Your task to perform on an android device: Clear all items from cart on newegg. Add "acer predator" to the cart on newegg Image 0: 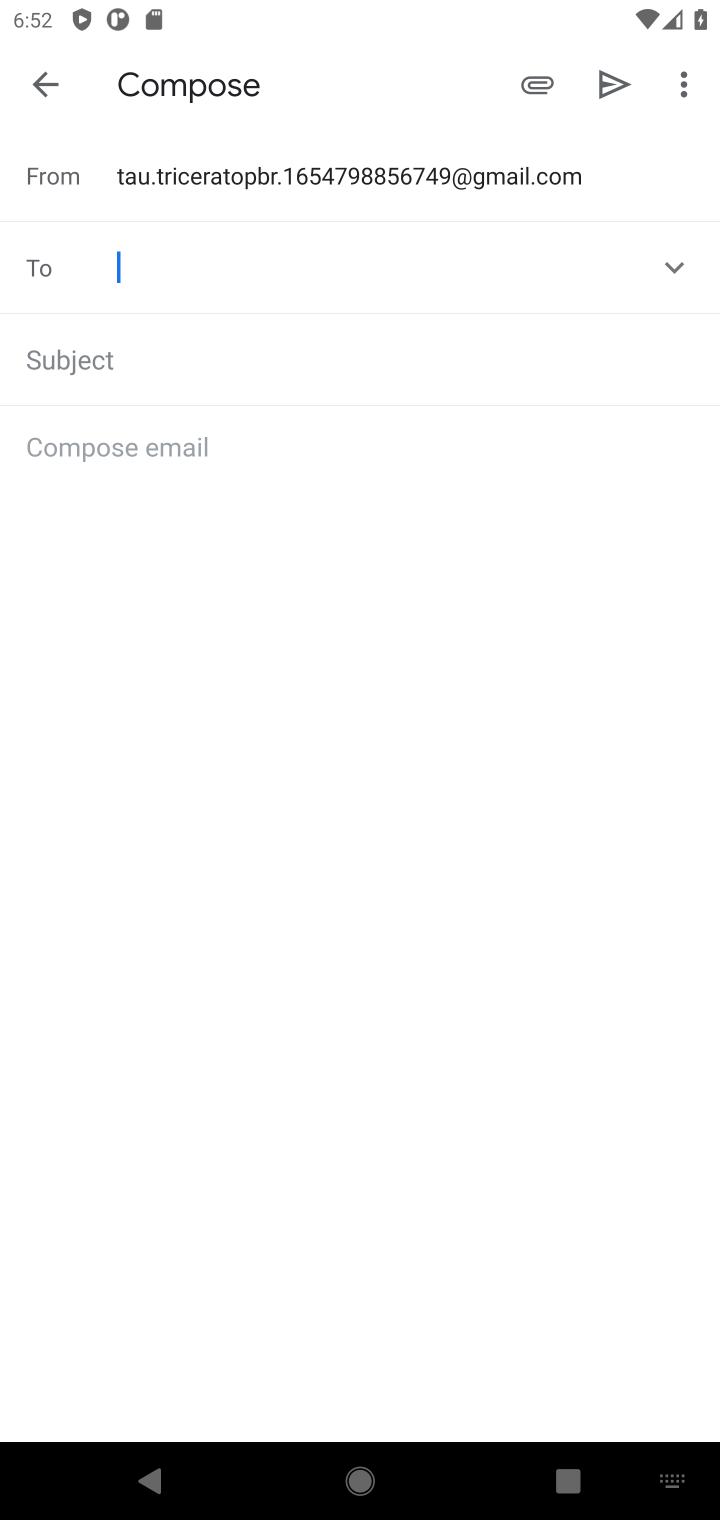
Step 0: press home button
Your task to perform on an android device: Clear all items from cart on newegg. Add "acer predator" to the cart on newegg Image 1: 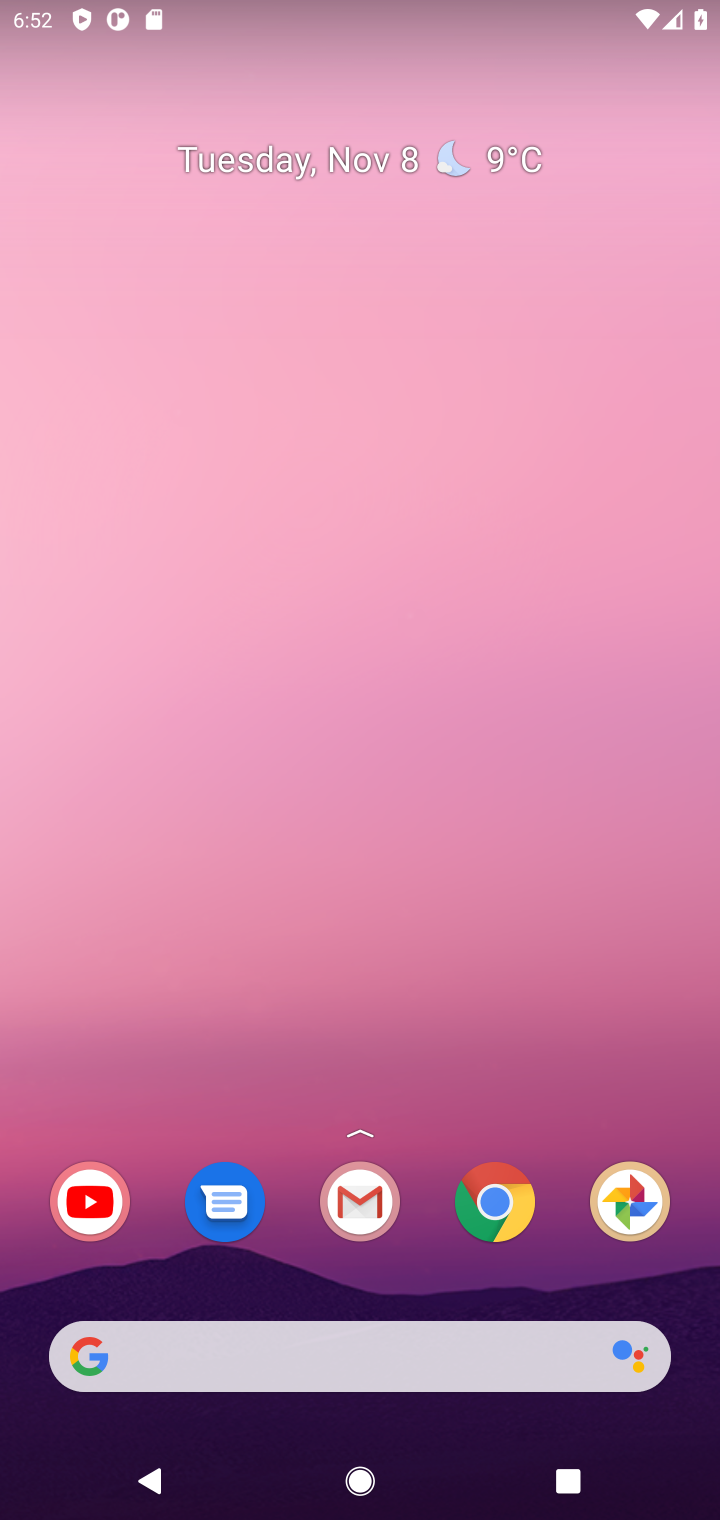
Step 1: click (275, 1365)
Your task to perform on an android device: Clear all items from cart on newegg. Add "acer predator" to the cart on newegg Image 2: 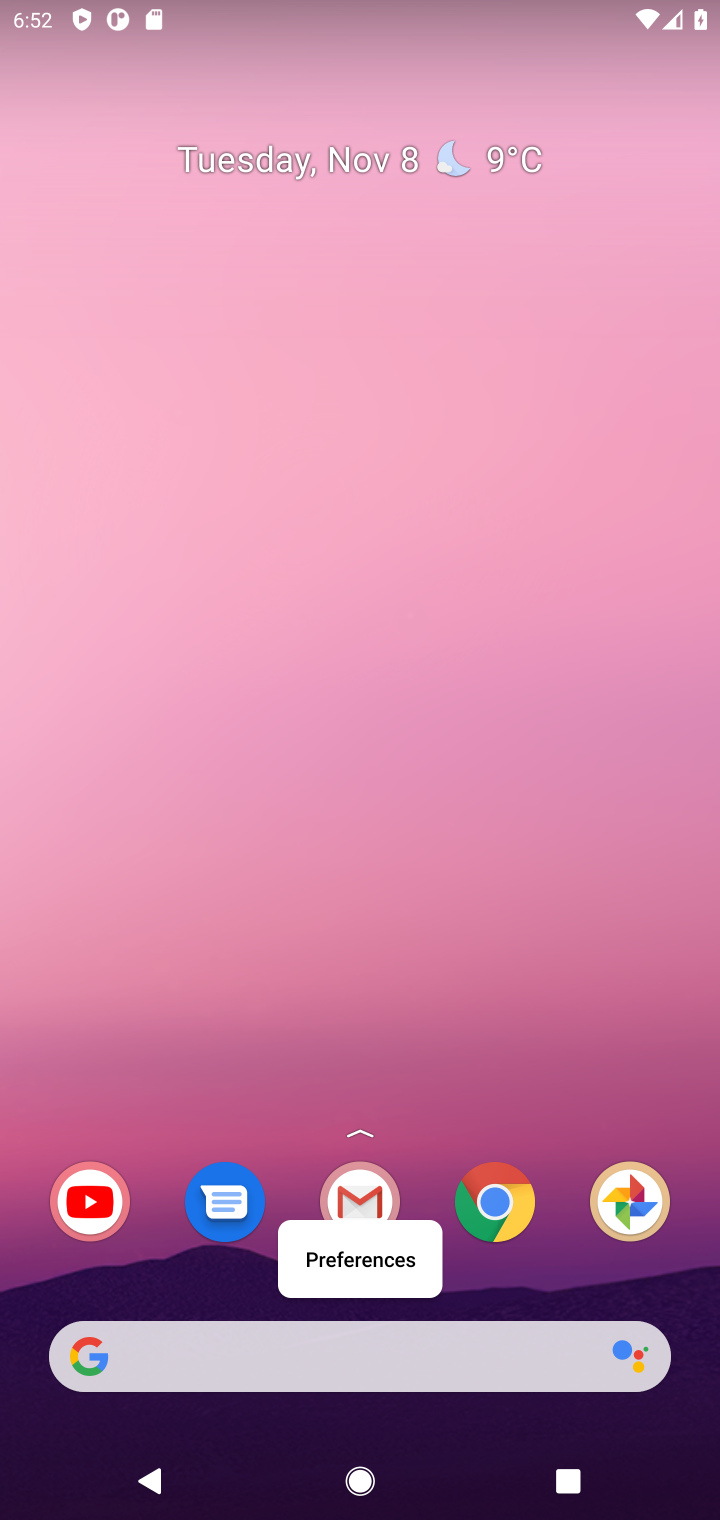
Step 2: click (275, 1365)
Your task to perform on an android device: Clear all items from cart on newegg. Add "acer predator" to the cart on newegg Image 3: 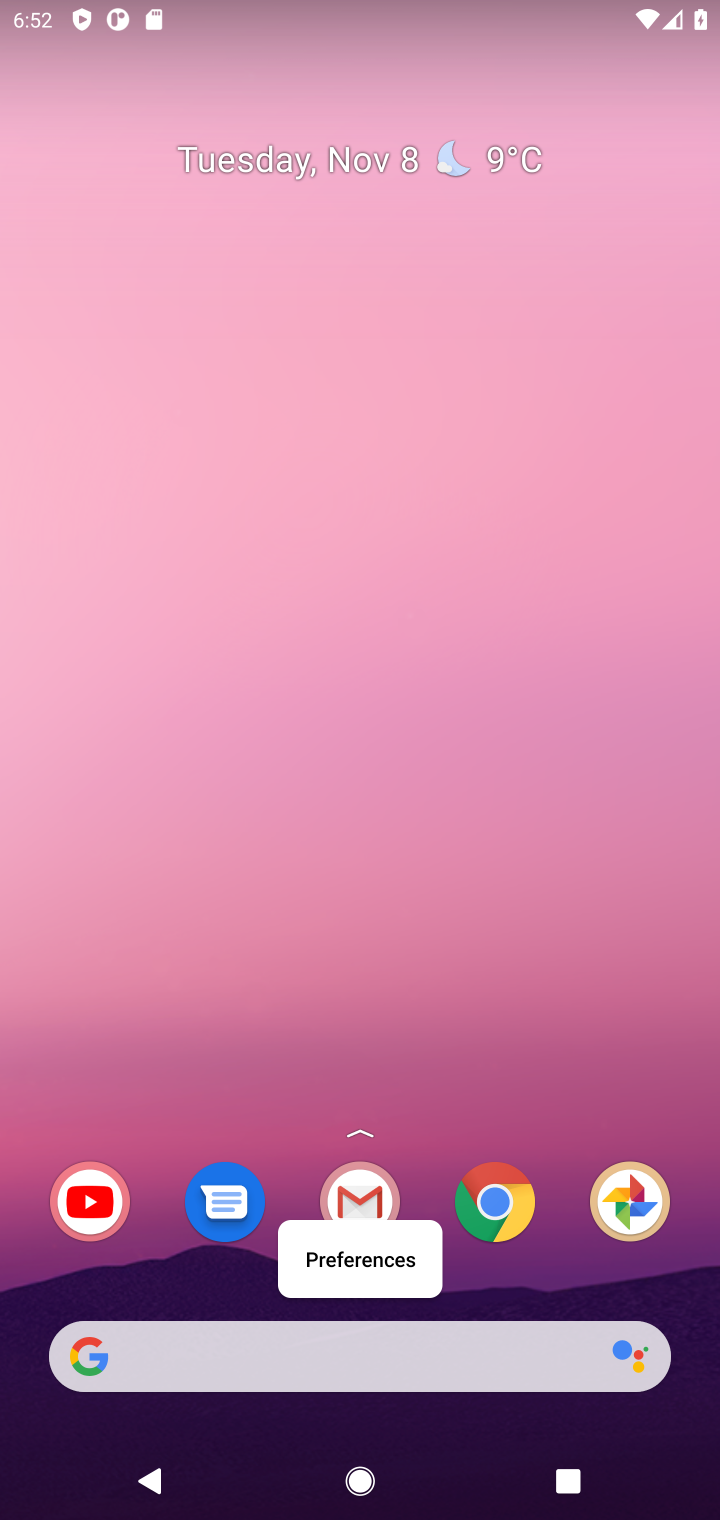
Step 3: click (275, 1365)
Your task to perform on an android device: Clear all items from cart on newegg. Add "acer predator" to the cart on newegg Image 4: 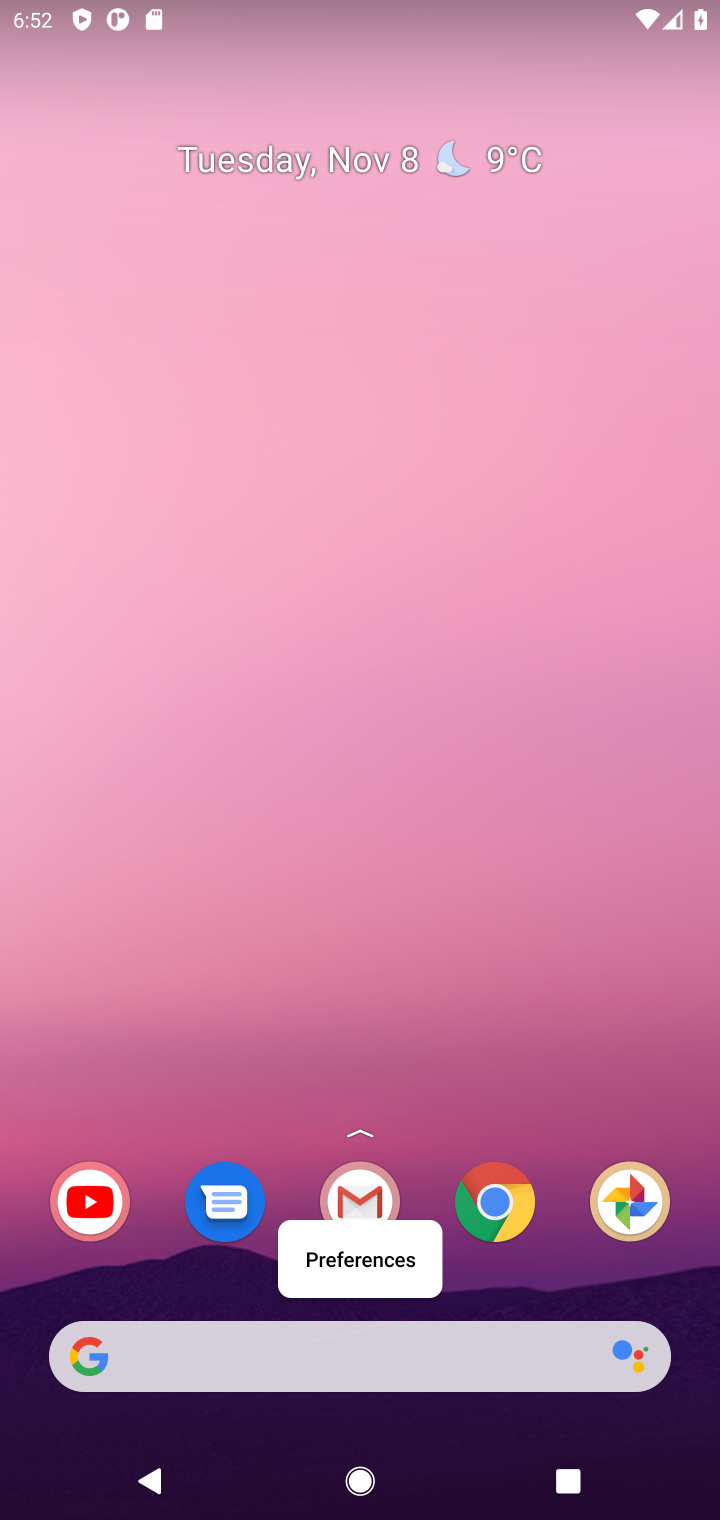
Step 4: click (275, 1365)
Your task to perform on an android device: Clear all items from cart on newegg. Add "acer predator" to the cart on newegg Image 5: 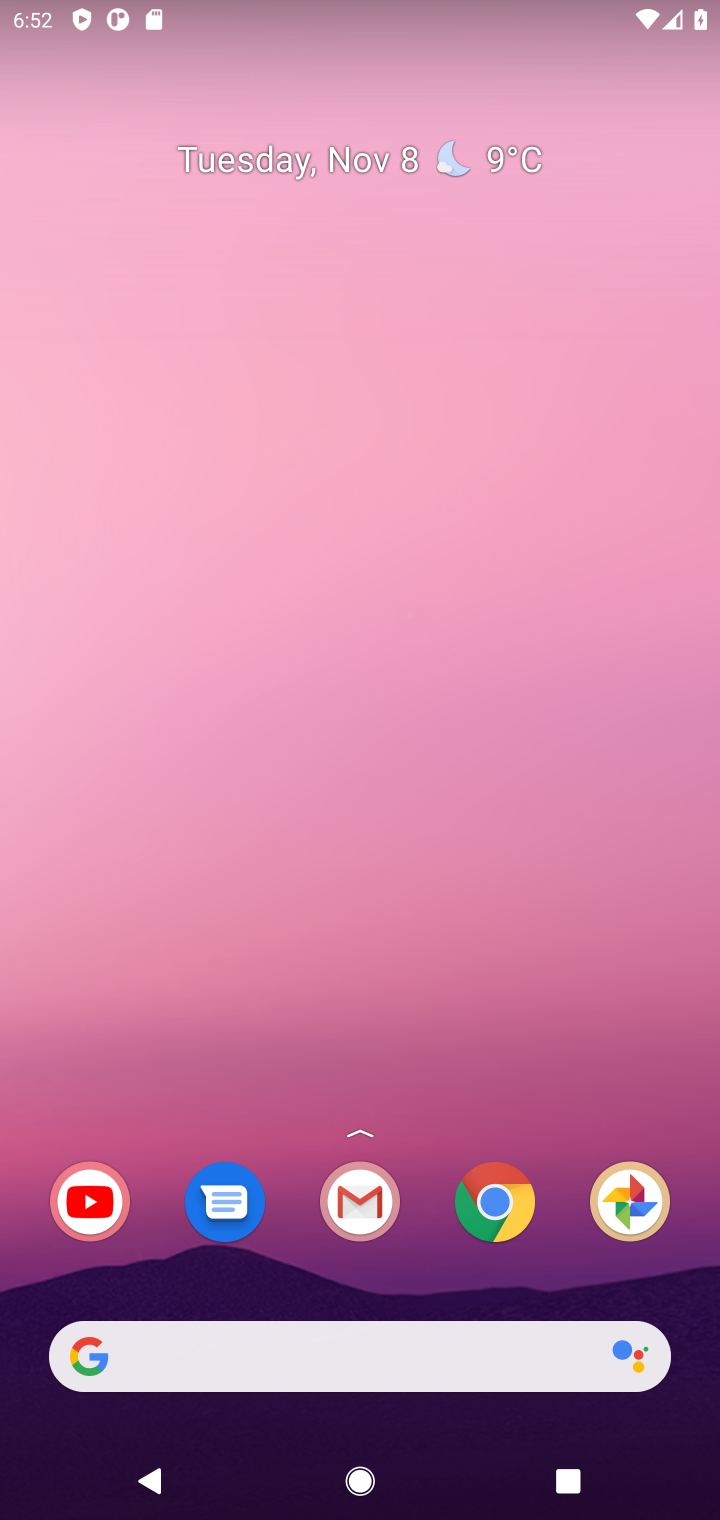
Step 5: click (275, 1365)
Your task to perform on an android device: Clear all items from cart on newegg. Add "acer predator" to the cart on newegg Image 6: 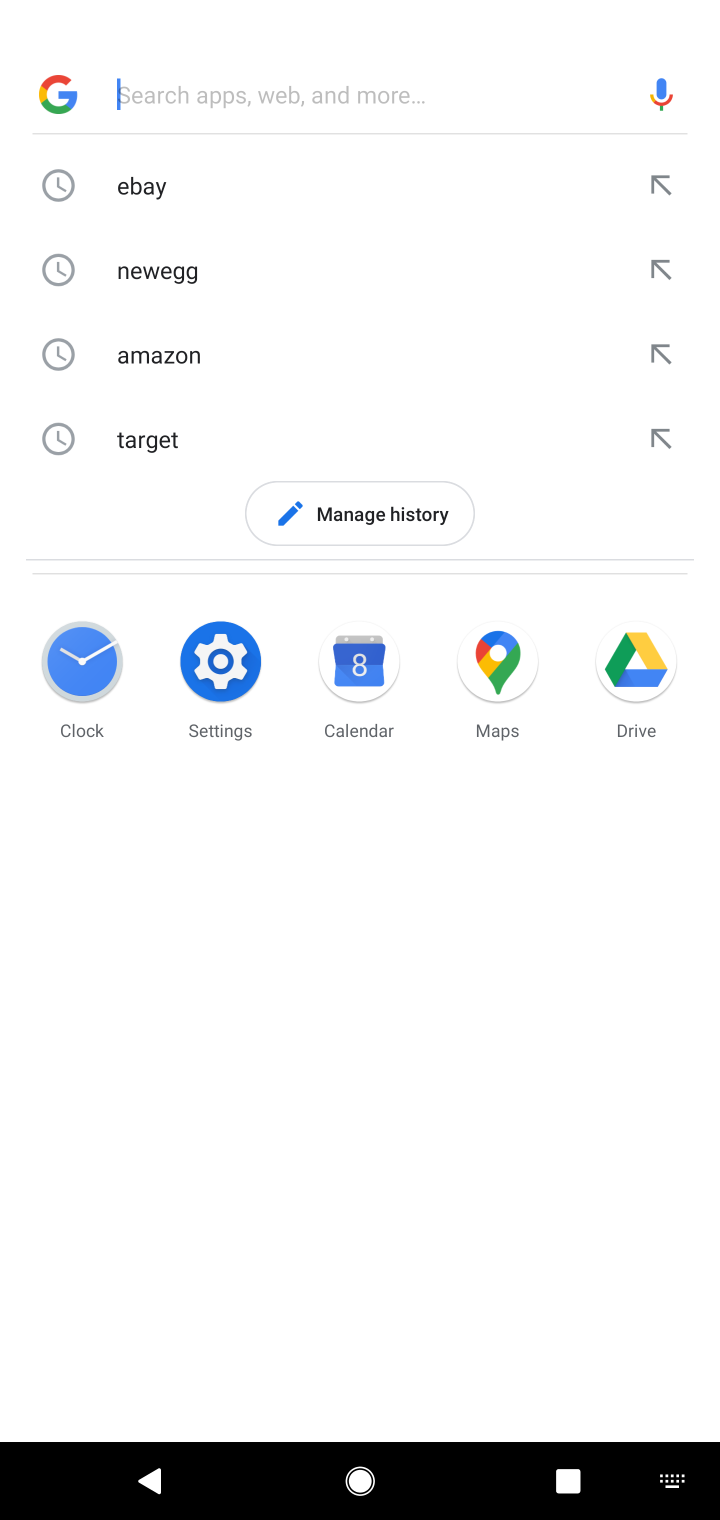
Step 6: type "newegg"
Your task to perform on an android device: Clear all items from cart on newegg. Add "acer predator" to the cart on newegg Image 7: 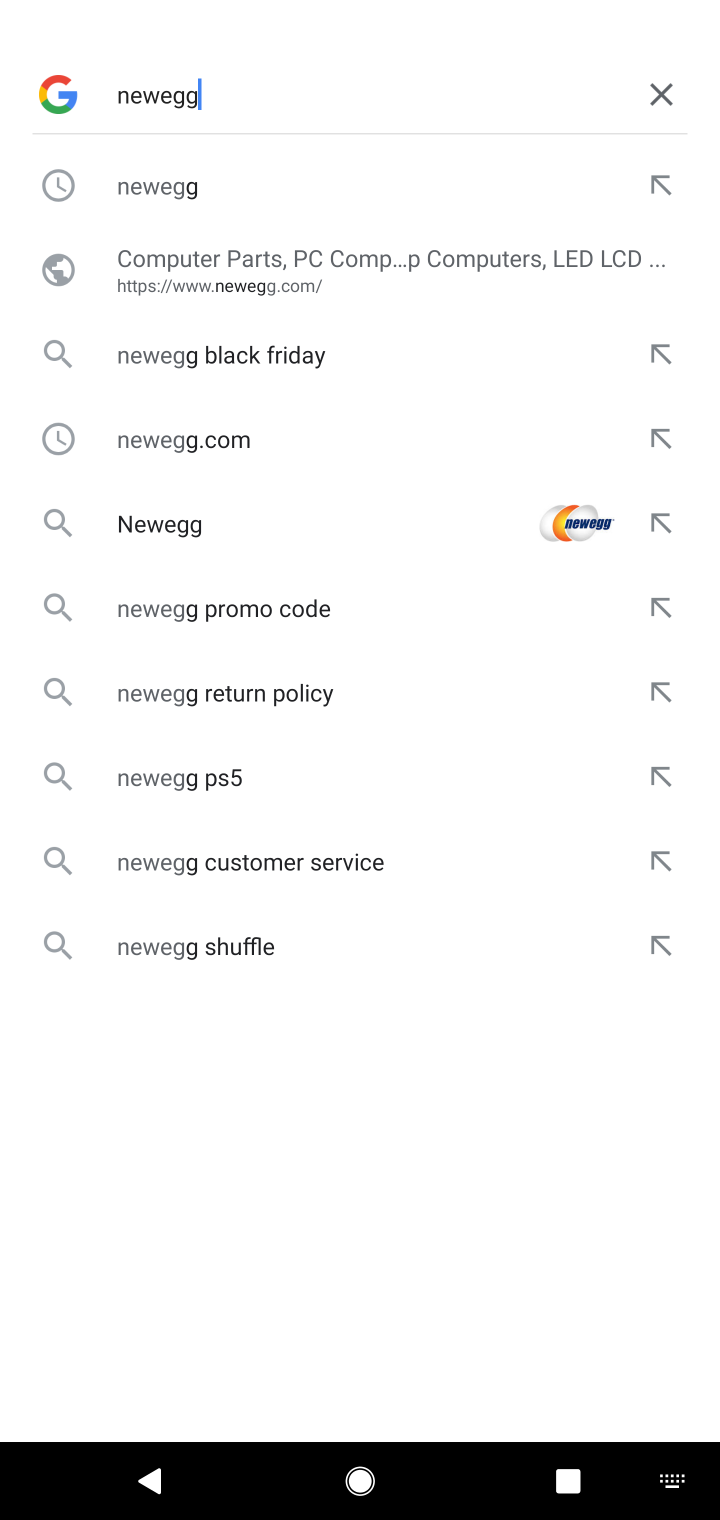
Step 7: type ""
Your task to perform on an android device: Clear all items from cart on newegg. Add "acer predator" to the cart on newegg Image 8: 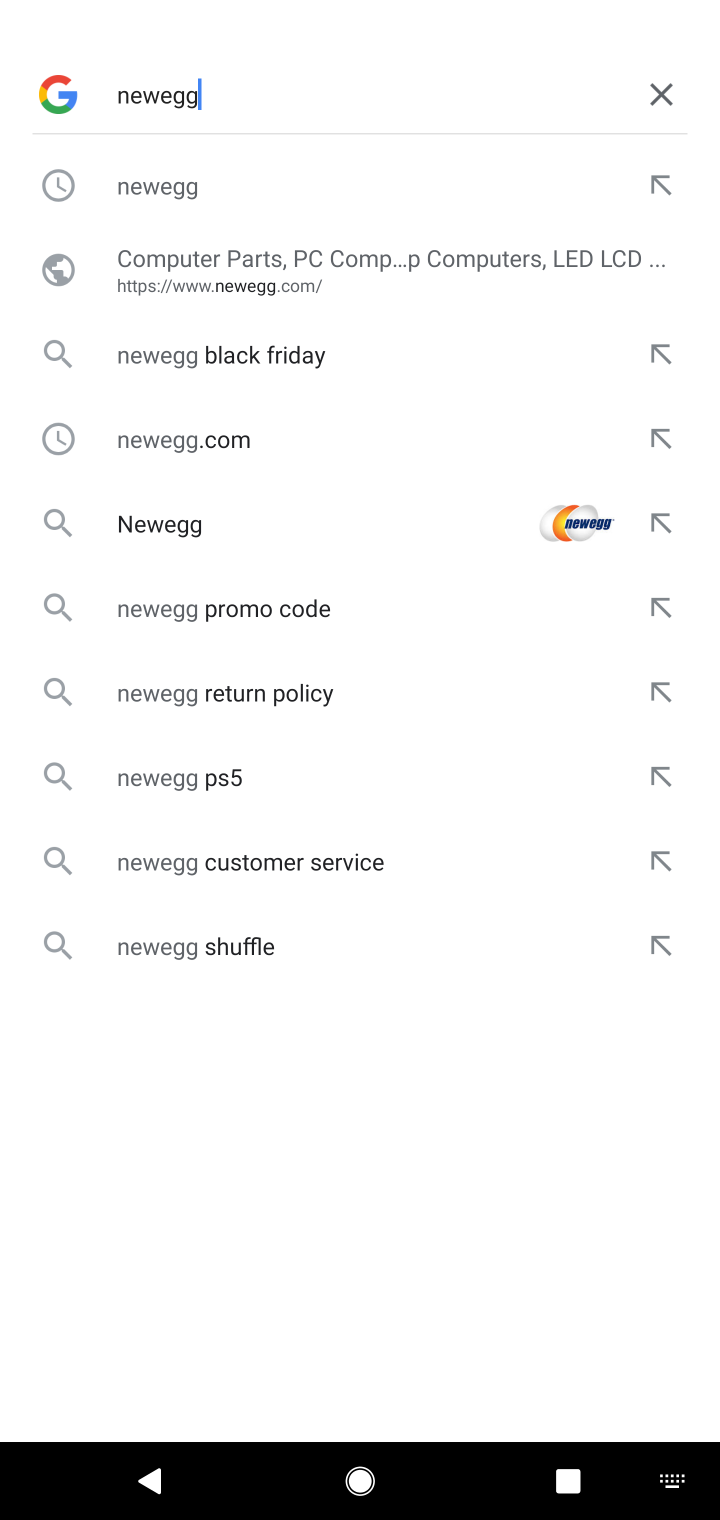
Step 8: press enter
Your task to perform on an android device: Clear all items from cart on newegg. Add "acer predator" to the cart on newegg Image 9: 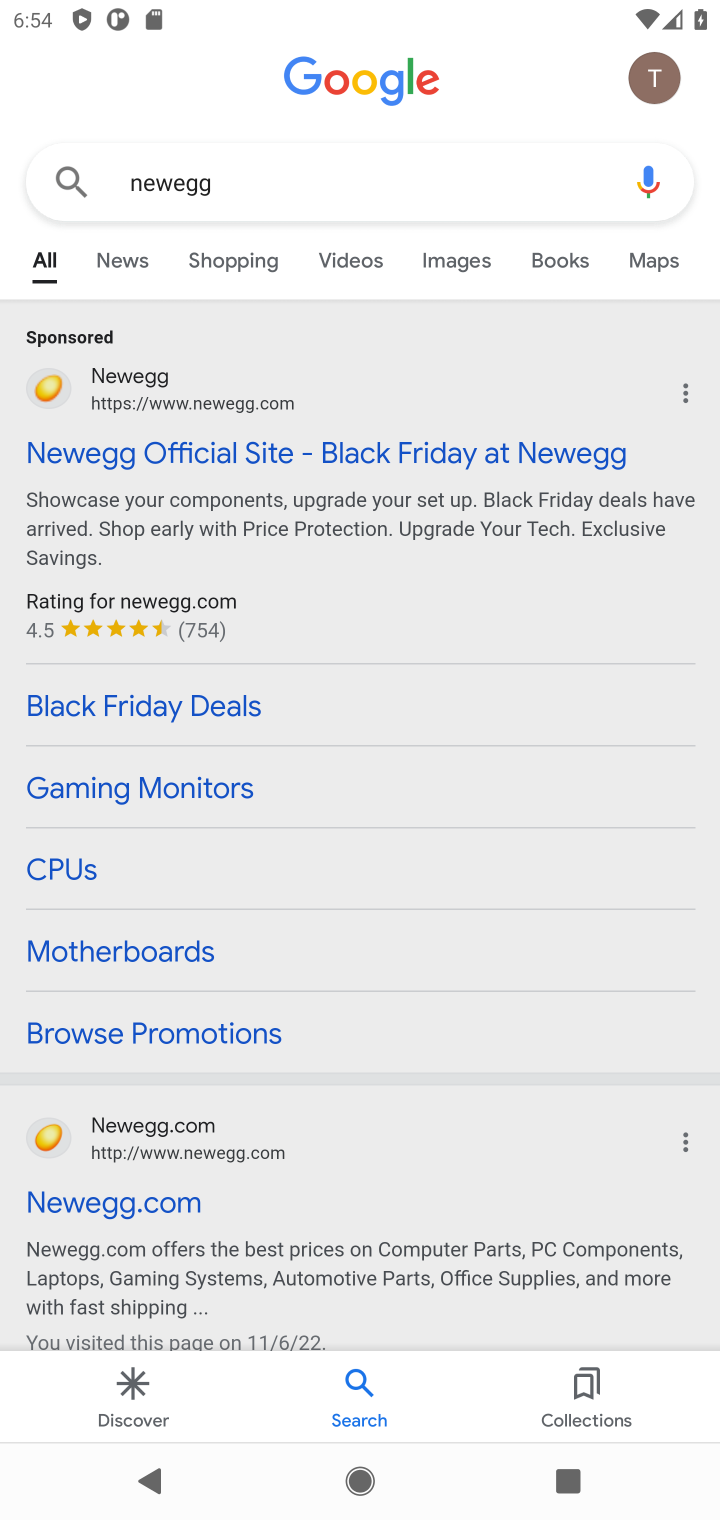
Step 9: click (295, 464)
Your task to perform on an android device: Clear all items from cart on newegg. Add "acer predator" to the cart on newegg Image 10: 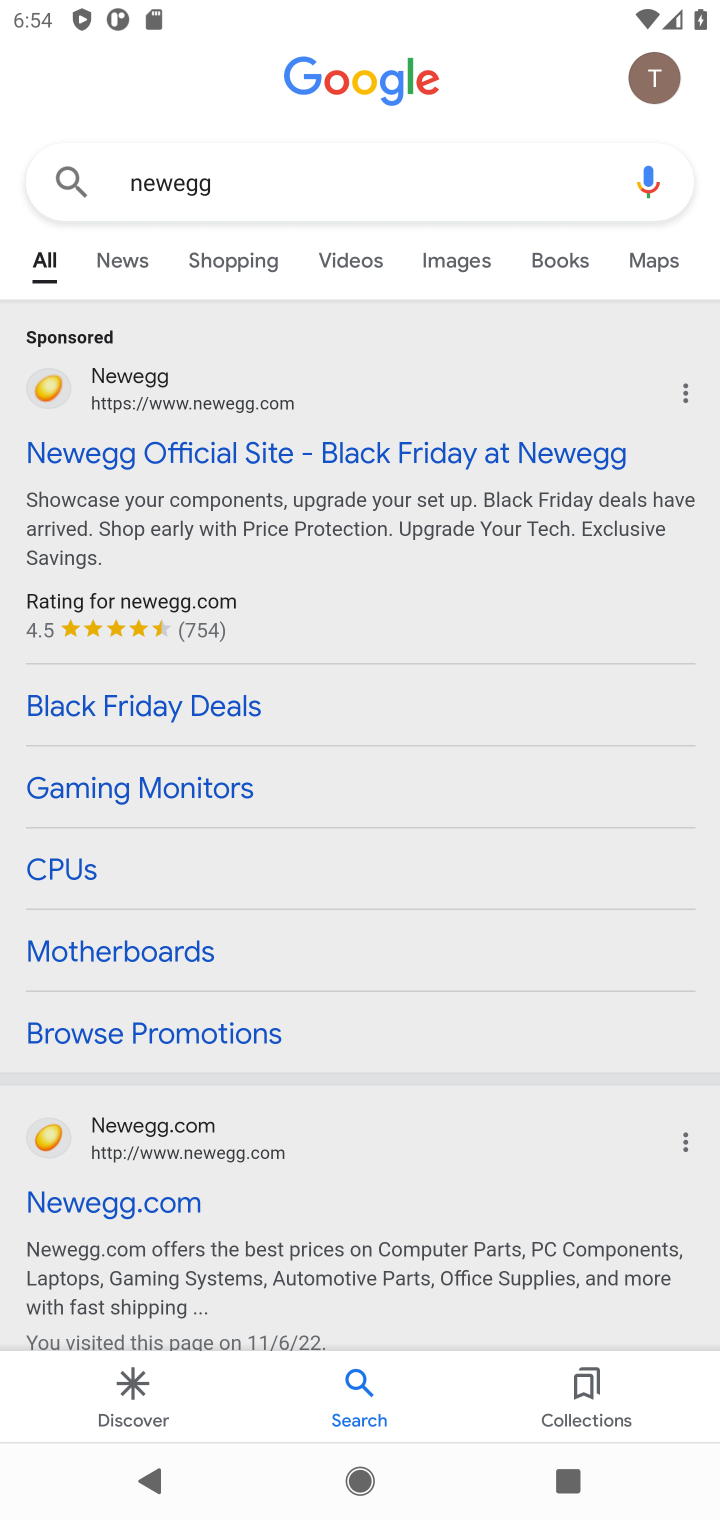
Step 10: click (288, 457)
Your task to perform on an android device: Clear all items from cart on newegg. Add "acer predator" to the cart on newegg Image 11: 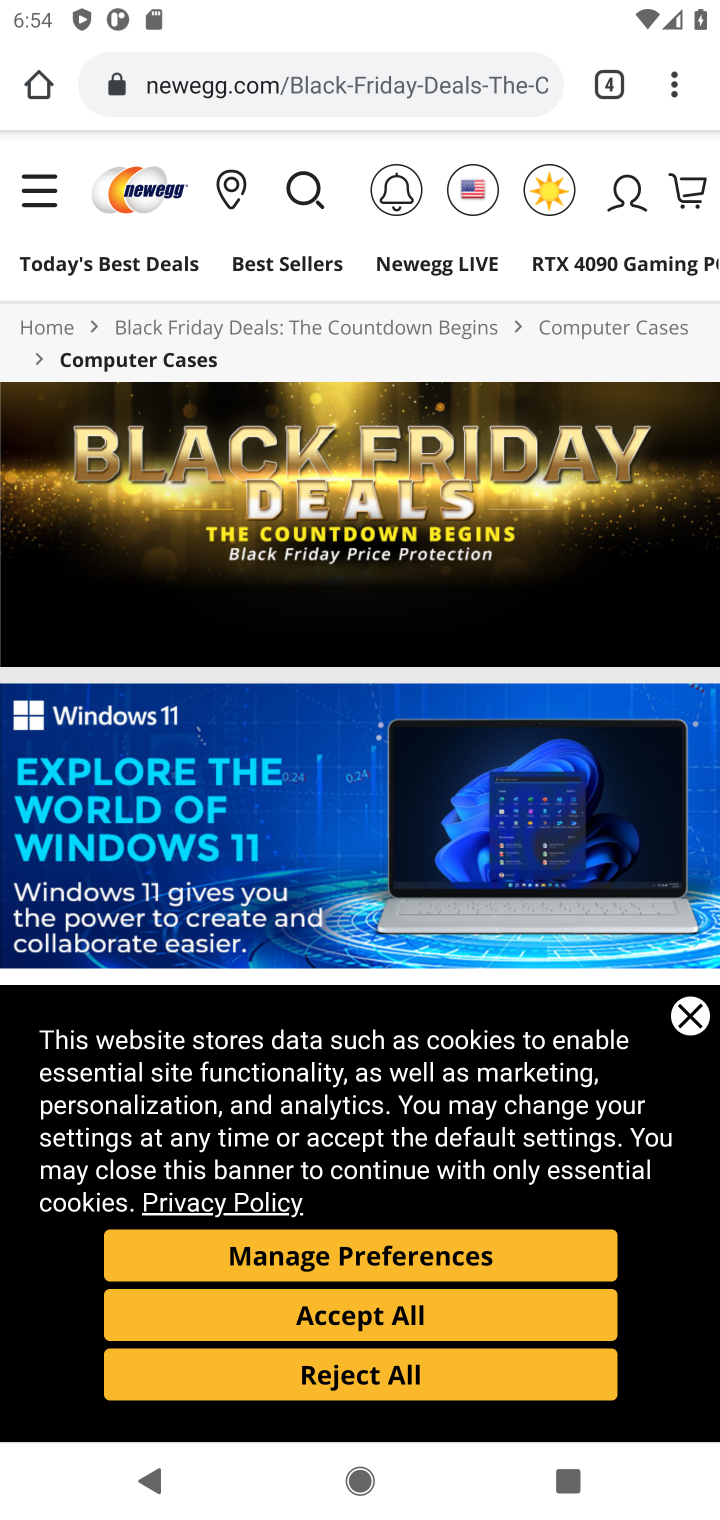
Step 11: click (377, 1370)
Your task to perform on an android device: Clear all items from cart on newegg. Add "acer predator" to the cart on newegg Image 12: 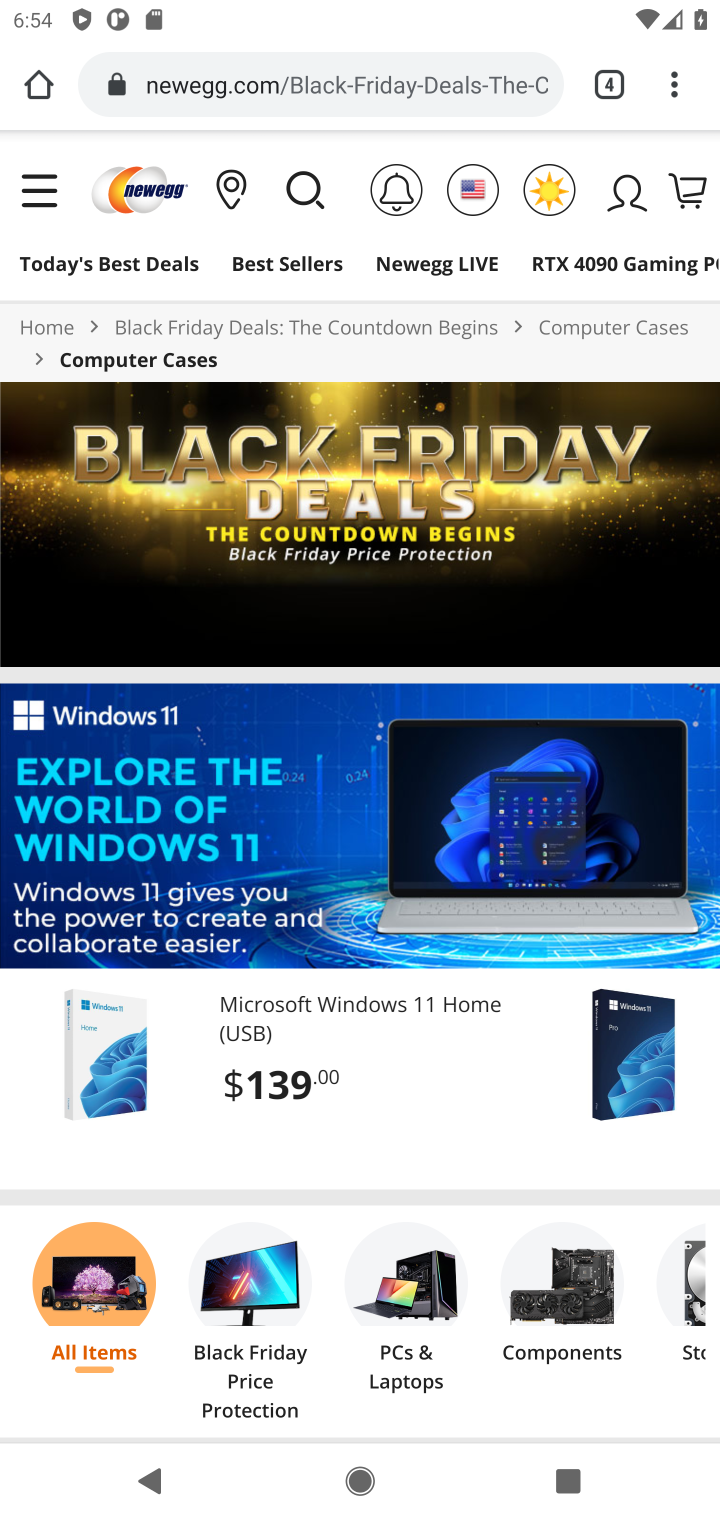
Step 12: drag from (451, 1179) to (490, 742)
Your task to perform on an android device: Clear all items from cart on newegg. Add "acer predator" to the cart on newegg Image 13: 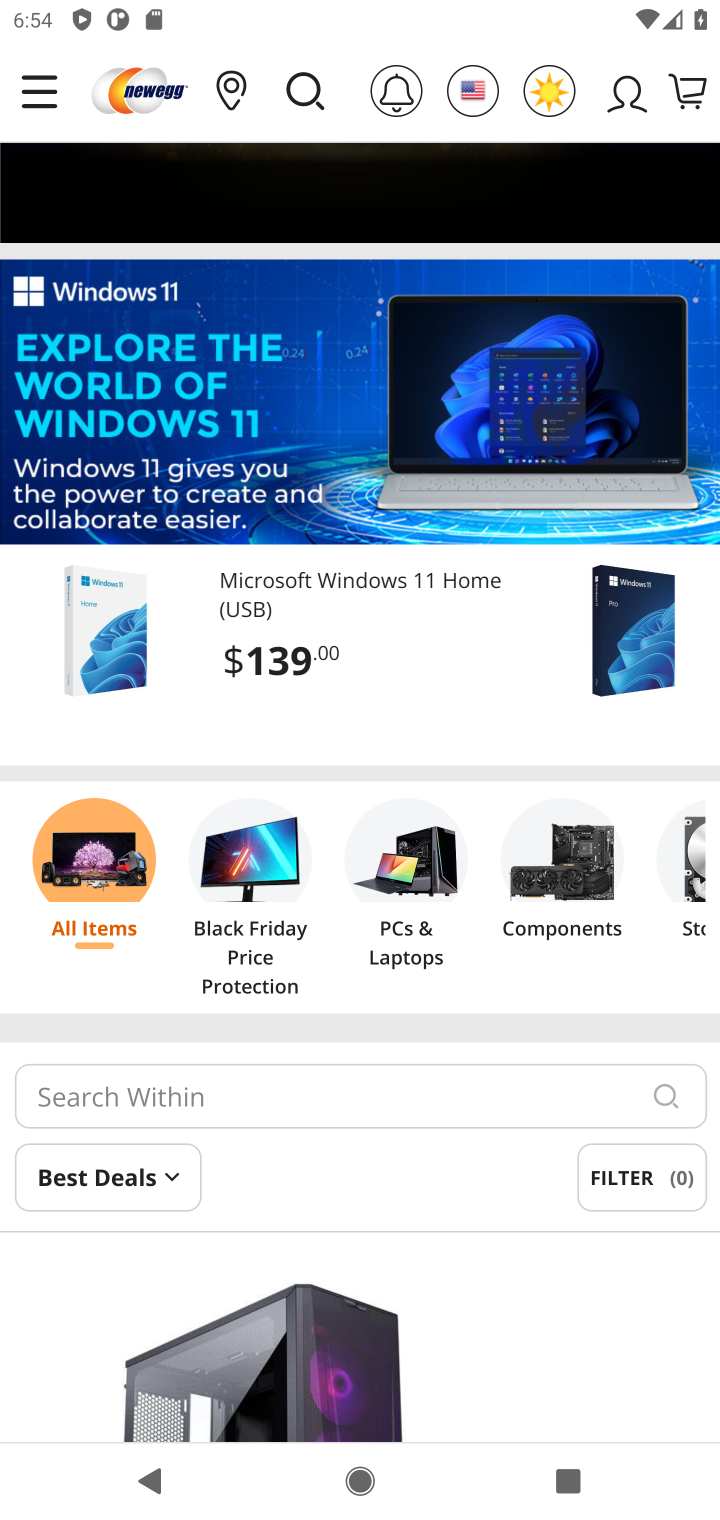
Step 13: click (330, 1108)
Your task to perform on an android device: Clear all items from cart on newegg. Add "acer predator" to the cart on newegg Image 14: 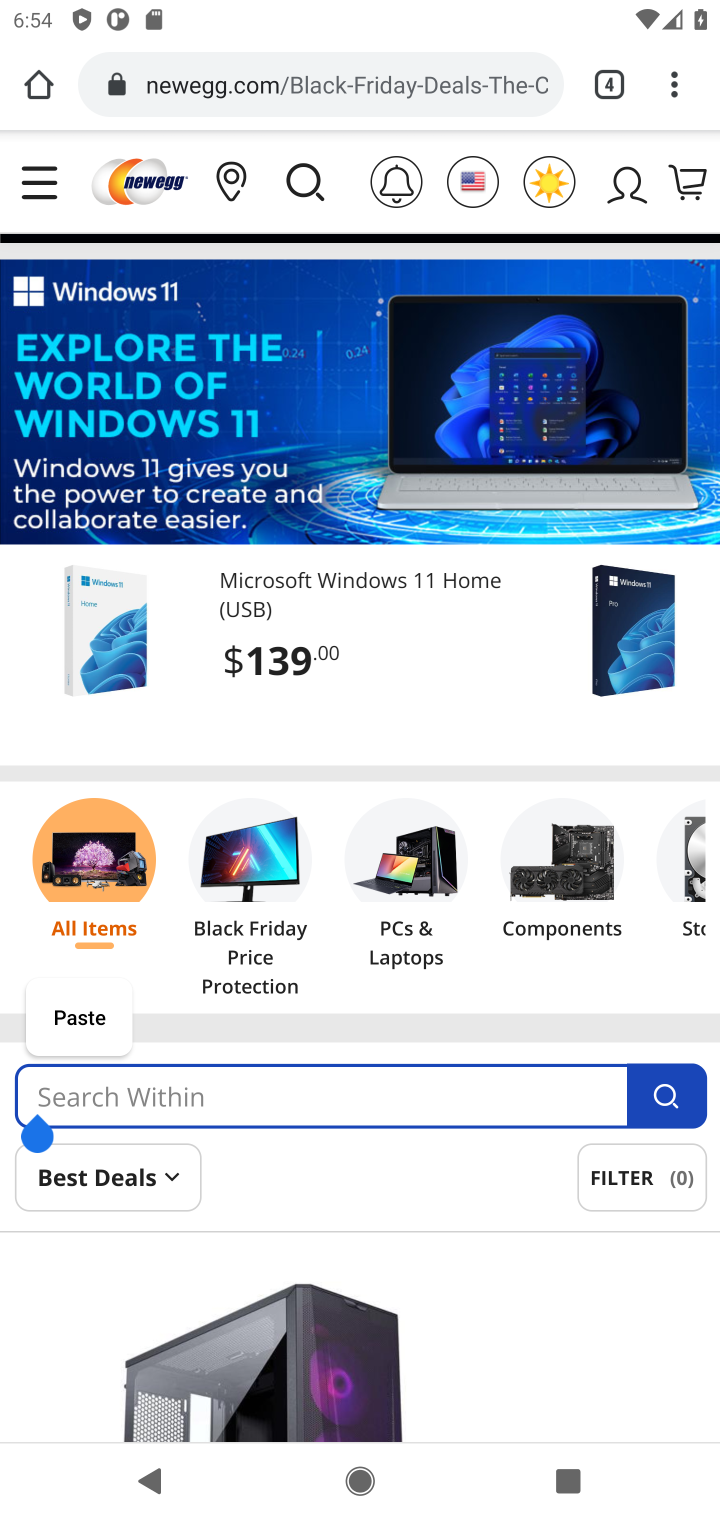
Step 14: type "acer predator"
Your task to perform on an android device: Clear all items from cart on newegg. Add "acer predator" to the cart on newegg Image 15: 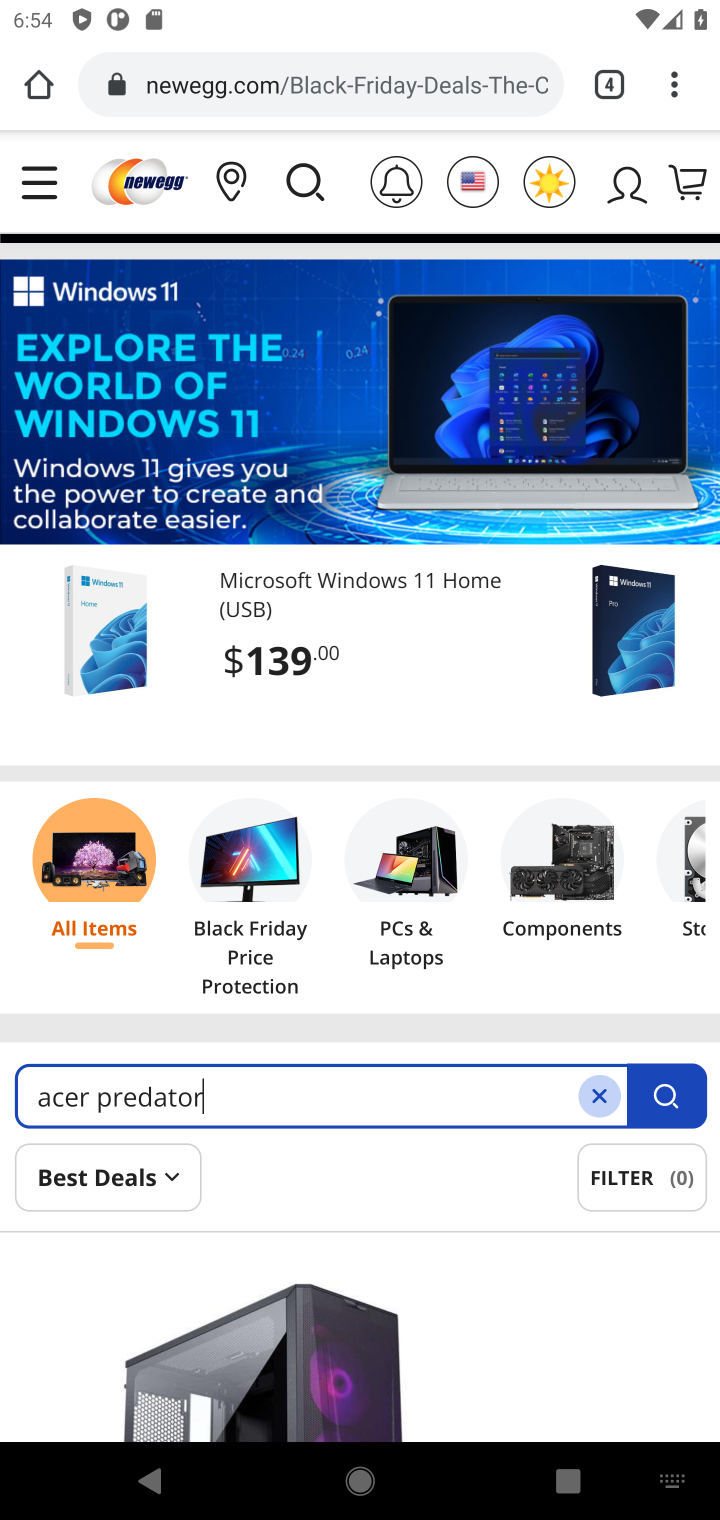
Step 15: press enter
Your task to perform on an android device: Clear all items from cart on newegg. Add "acer predator" to the cart on newegg Image 16: 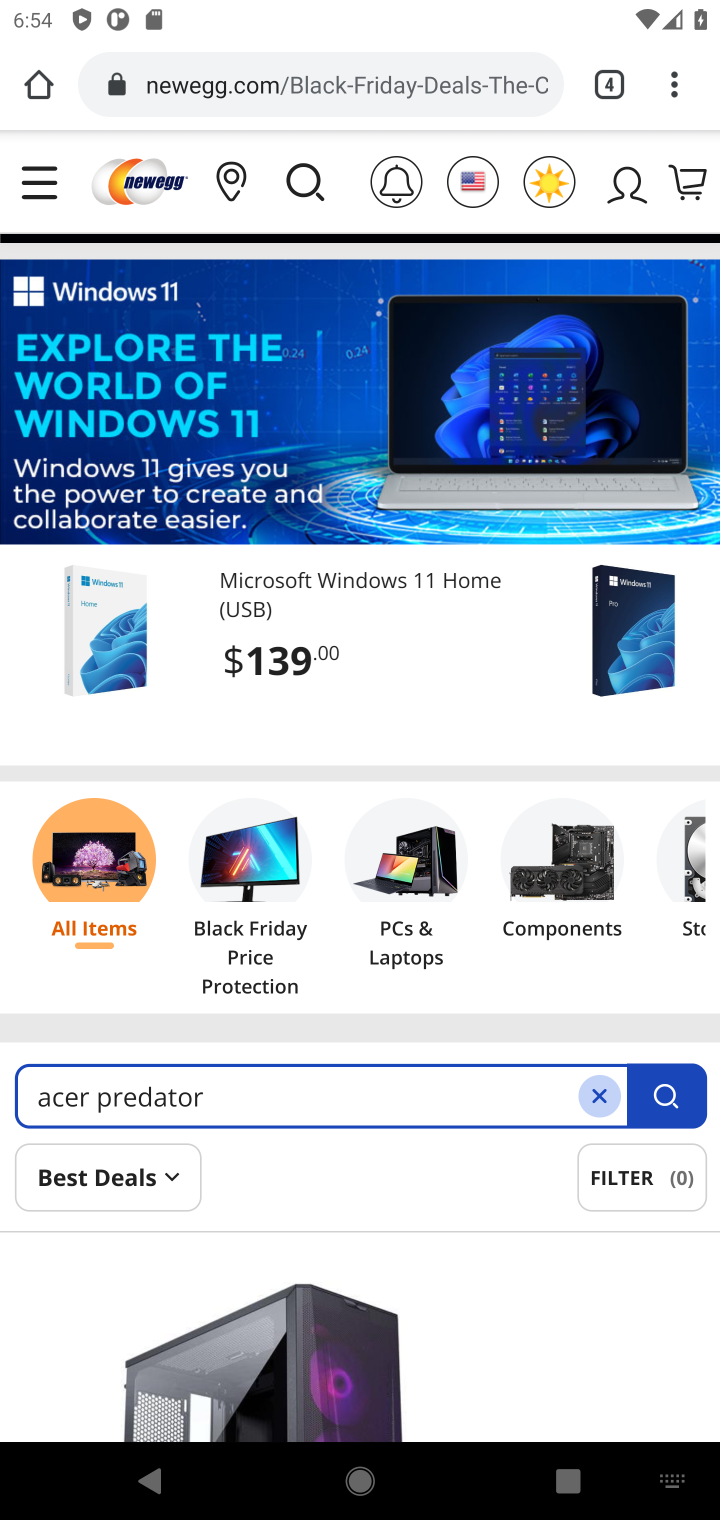
Step 16: type ""
Your task to perform on an android device: Clear all items from cart on newegg. Add "acer predator" to the cart on newegg Image 17: 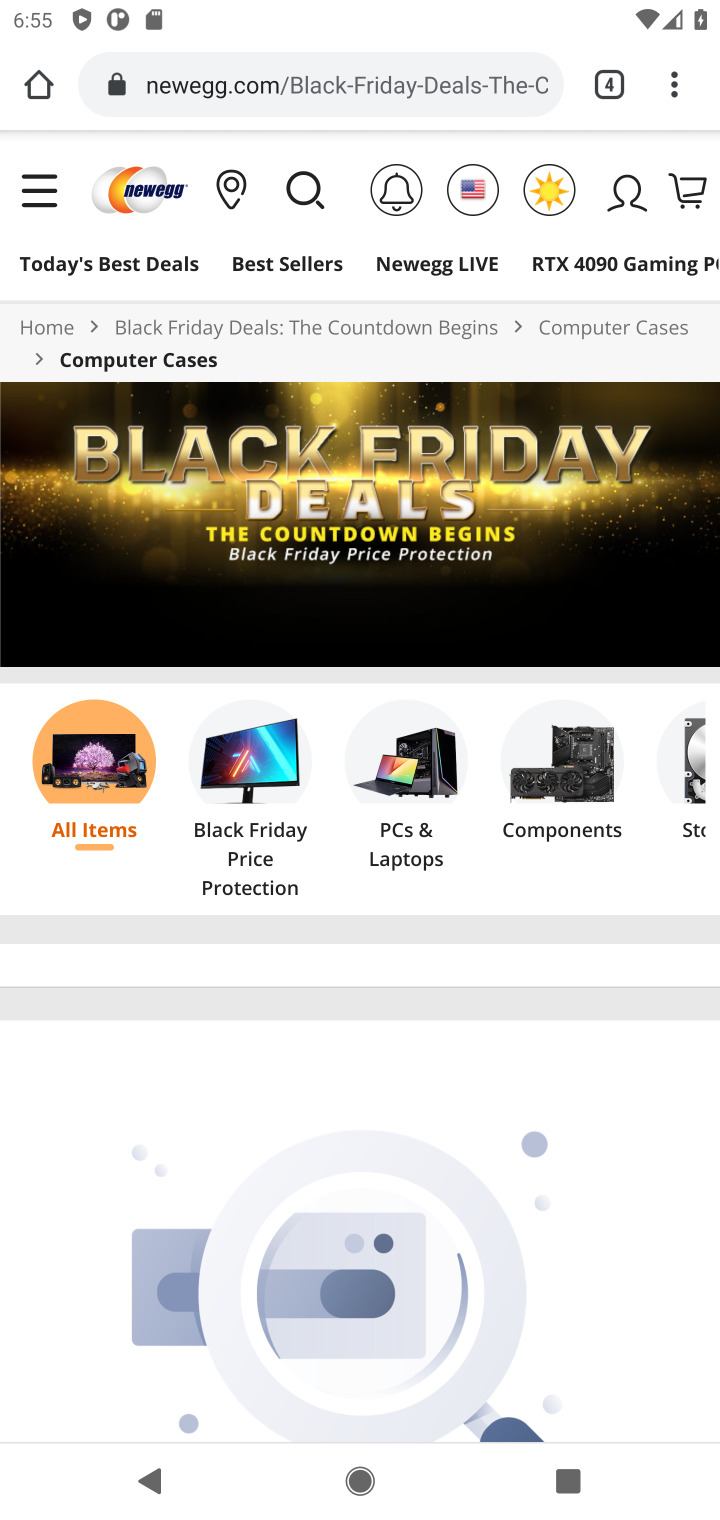
Step 17: task complete